Your task to perform on an android device: turn off notifications settings in the gmail app Image 0: 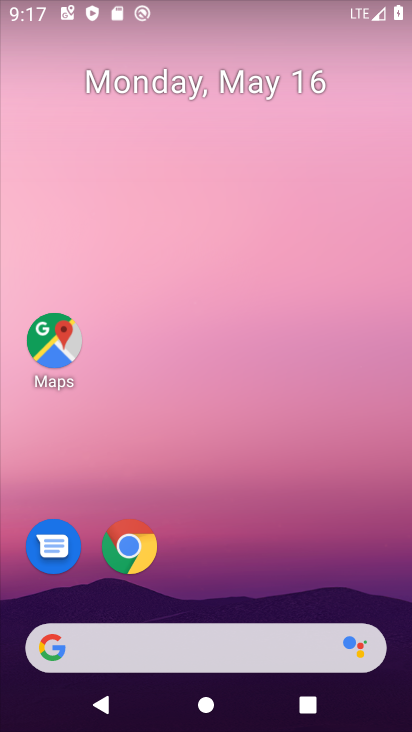
Step 0: drag from (247, 687) to (174, 338)
Your task to perform on an android device: turn off notifications settings in the gmail app Image 1: 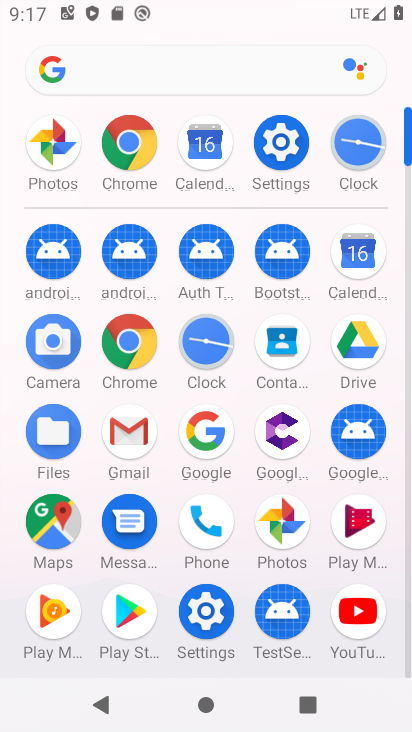
Step 1: click (137, 434)
Your task to perform on an android device: turn off notifications settings in the gmail app Image 2: 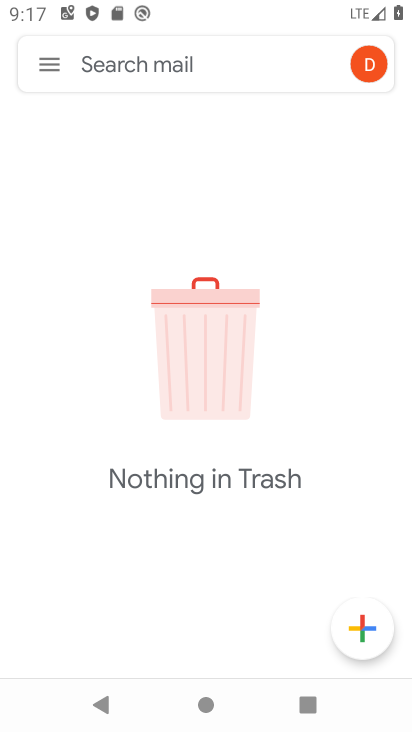
Step 2: click (49, 69)
Your task to perform on an android device: turn off notifications settings in the gmail app Image 3: 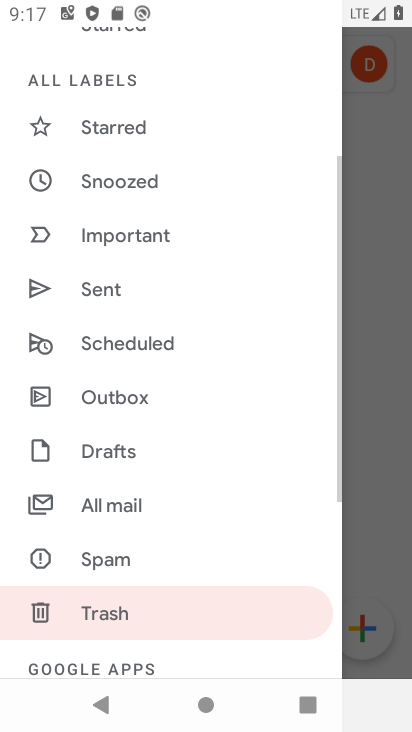
Step 3: drag from (161, 562) to (213, 377)
Your task to perform on an android device: turn off notifications settings in the gmail app Image 4: 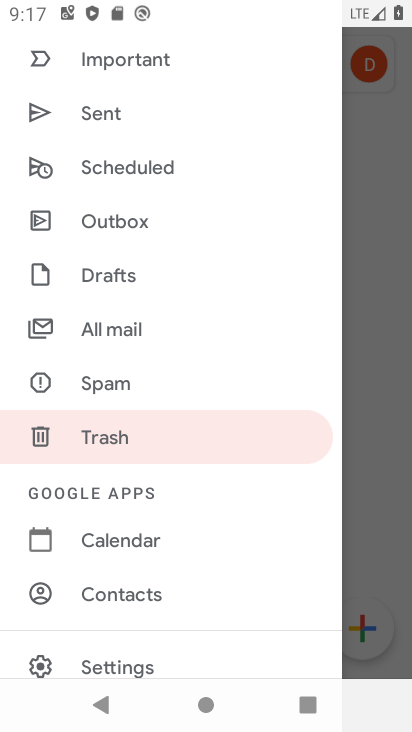
Step 4: click (115, 654)
Your task to perform on an android device: turn off notifications settings in the gmail app Image 5: 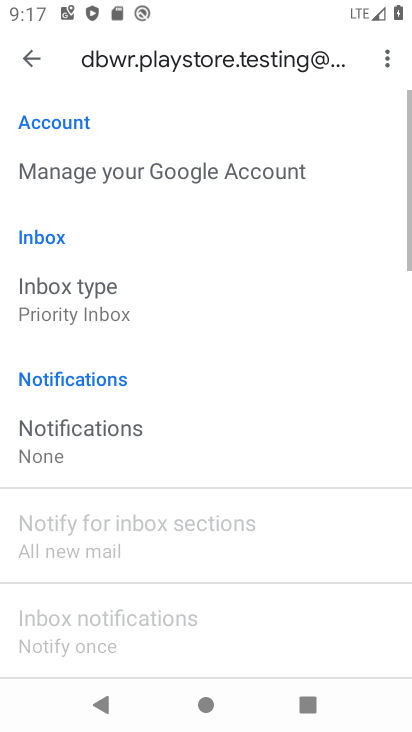
Step 5: click (80, 433)
Your task to perform on an android device: turn off notifications settings in the gmail app Image 6: 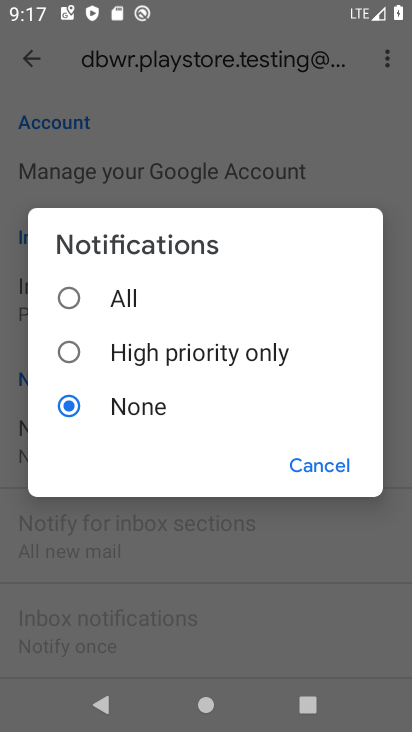
Step 6: task complete